Your task to perform on an android device: choose inbox layout in the gmail app Image 0: 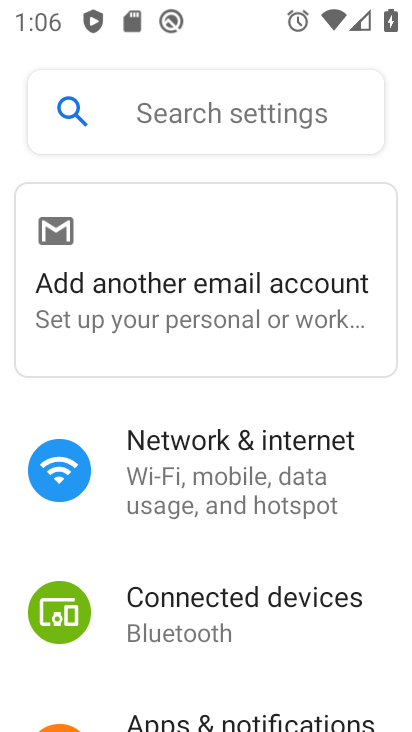
Step 0: press home button
Your task to perform on an android device: choose inbox layout in the gmail app Image 1: 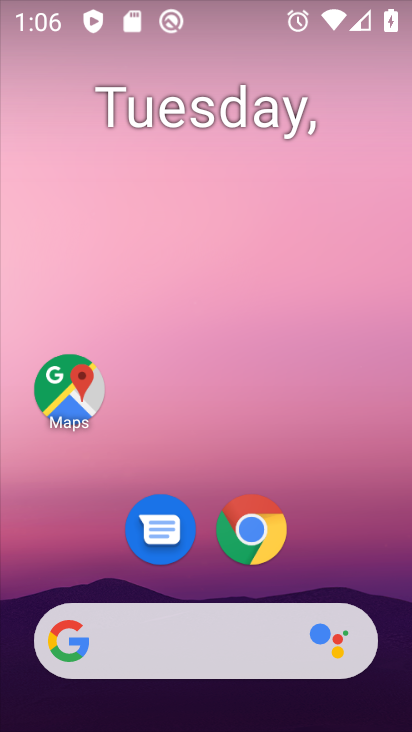
Step 1: drag from (392, 603) to (226, 33)
Your task to perform on an android device: choose inbox layout in the gmail app Image 2: 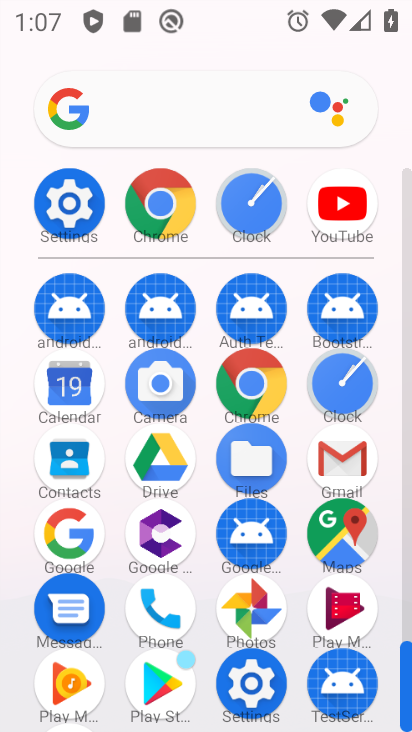
Step 2: click (339, 465)
Your task to perform on an android device: choose inbox layout in the gmail app Image 3: 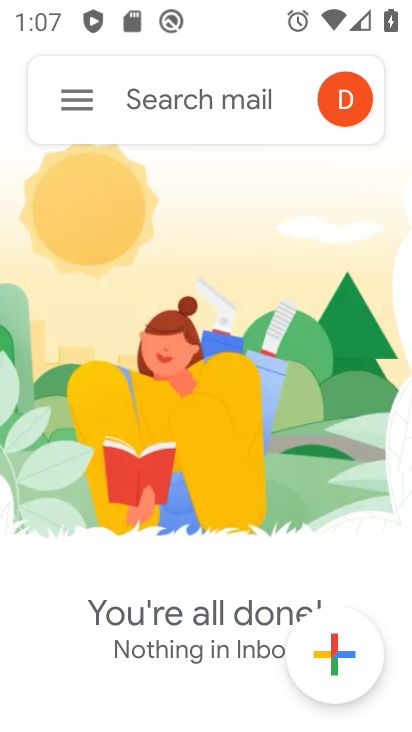
Step 3: task complete